Your task to perform on an android device: check data usage Image 0: 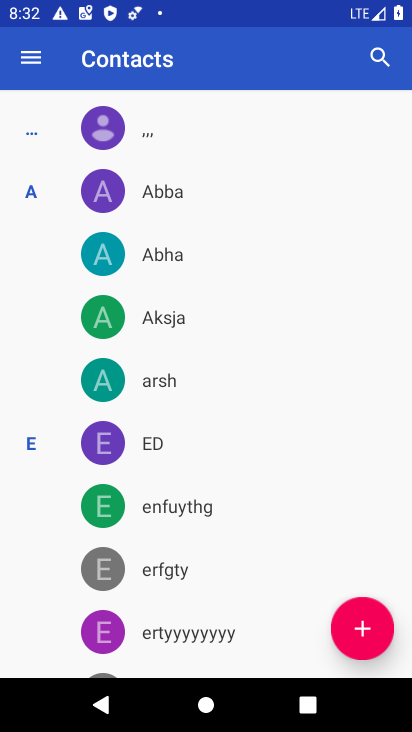
Step 0: press home button
Your task to perform on an android device: check data usage Image 1: 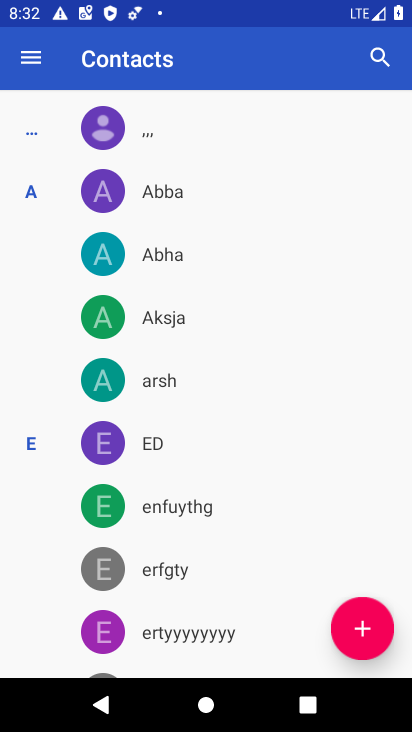
Step 1: press home button
Your task to perform on an android device: check data usage Image 2: 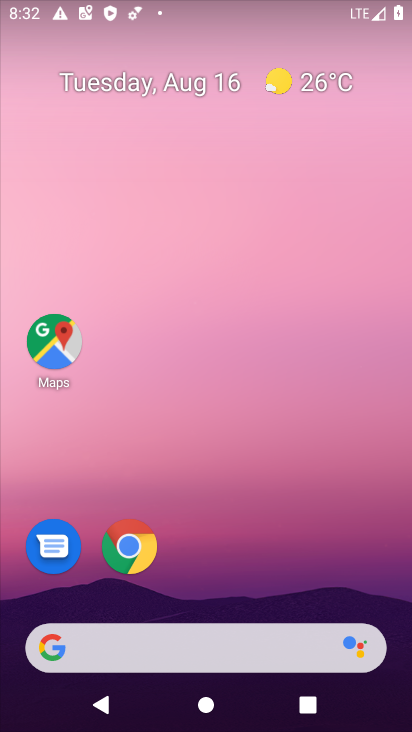
Step 2: drag from (263, 556) to (210, 6)
Your task to perform on an android device: check data usage Image 3: 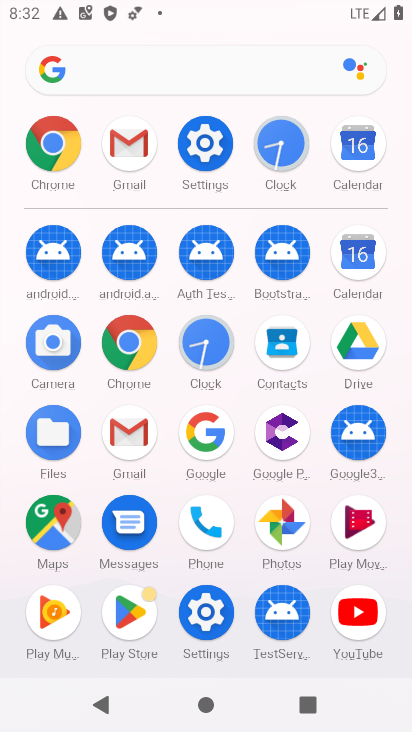
Step 3: click (193, 136)
Your task to perform on an android device: check data usage Image 4: 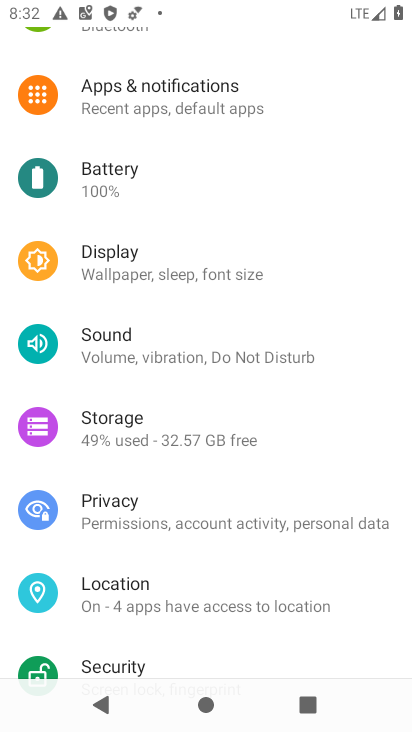
Step 4: drag from (193, 242) to (253, 582)
Your task to perform on an android device: check data usage Image 5: 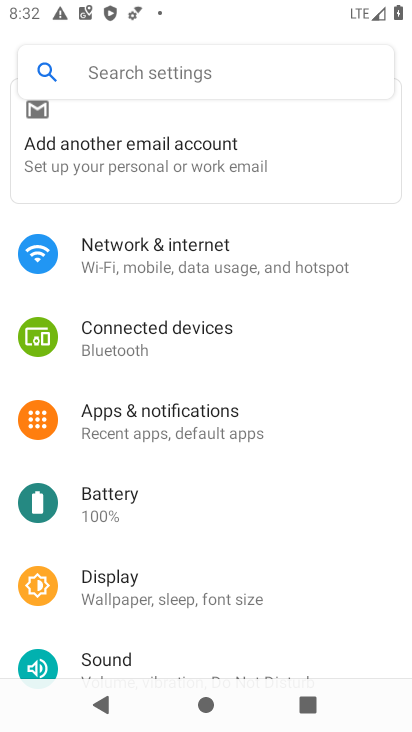
Step 5: click (218, 263)
Your task to perform on an android device: check data usage Image 6: 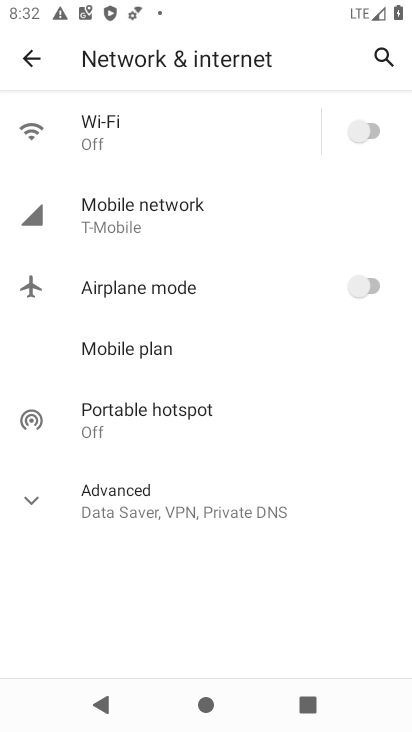
Step 6: click (180, 216)
Your task to perform on an android device: check data usage Image 7: 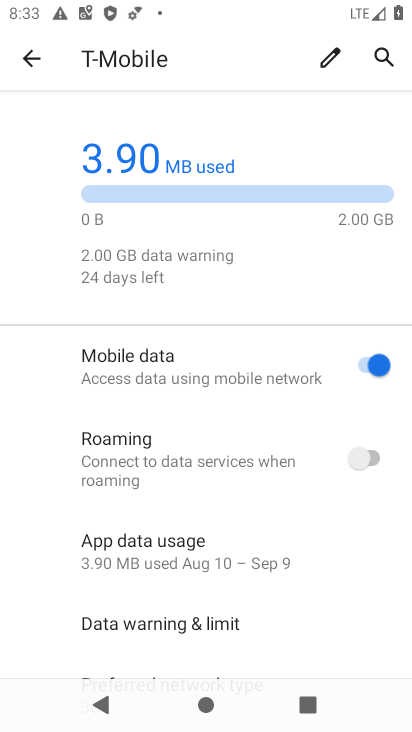
Step 7: task complete